Your task to perform on an android device: clear history in the chrome app Image 0: 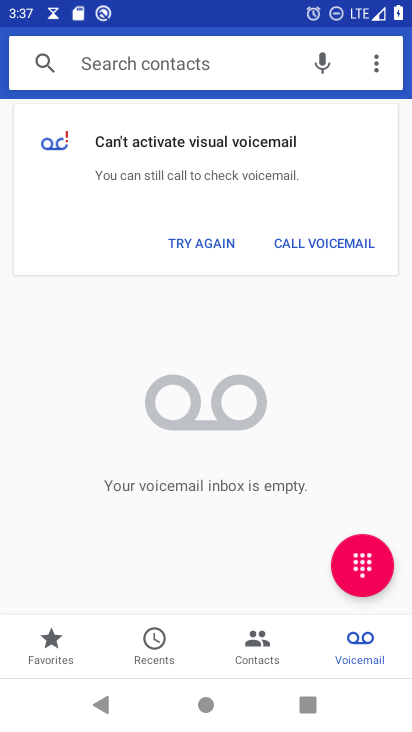
Step 0: press home button
Your task to perform on an android device: clear history in the chrome app Image 1: 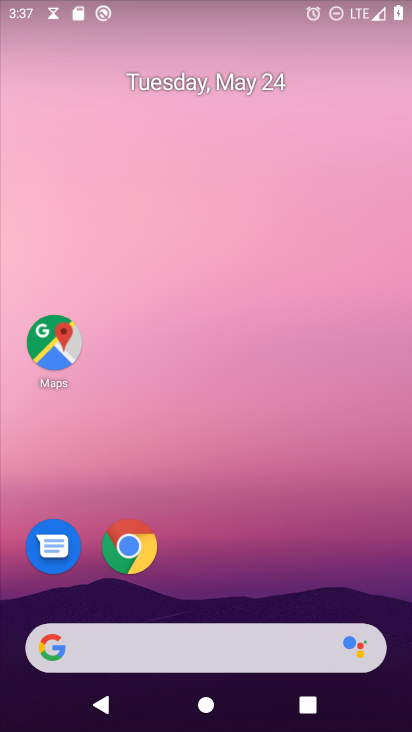
Step 1: drag from (245, 641) to (402, 441)
Your task to perform on an android device: clear history in the chrome app Image 2: 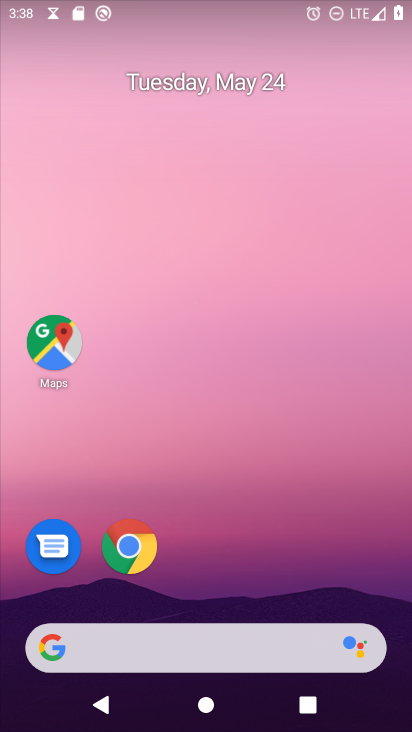
Step 2: drag from (315, 641) to (352, 81)
Your task to perform on an android device: clear history in the chrome app Image 3: 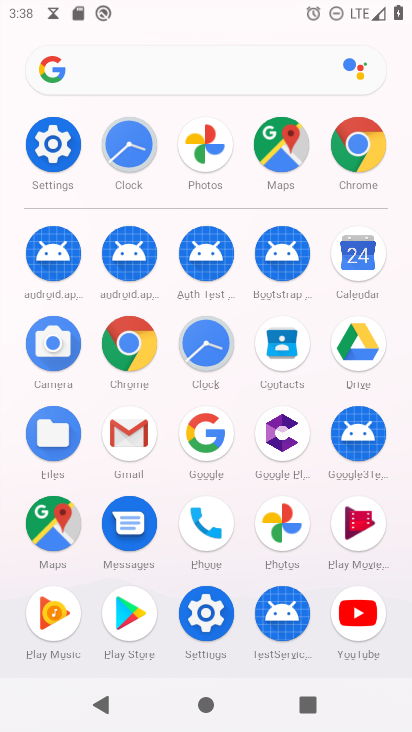
Step 3: click (151, 352)
Your task to perform on an android device: clear history in the chrome app Image 4: 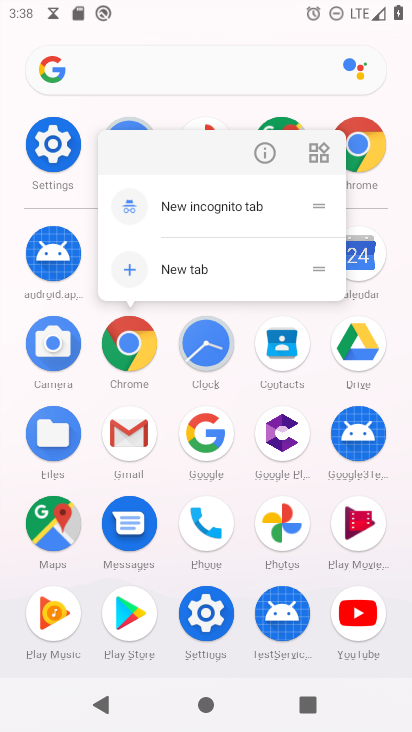
Step 4: click (122, 340)
Your task to perform on an android device: clear history in the chrome app Image 5: 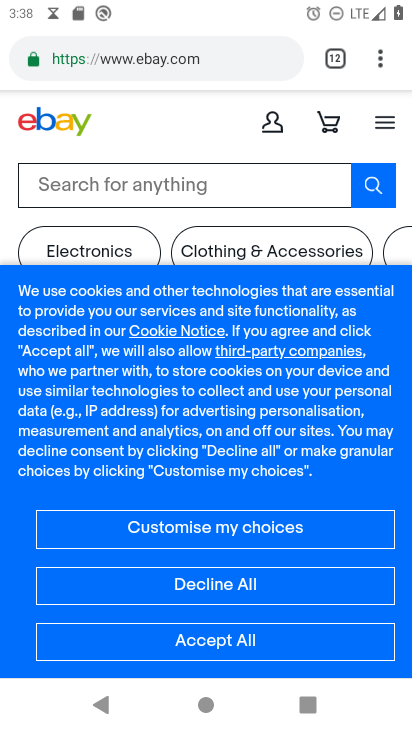
Step 5: task complete